Your task to perform on an android device: Do I have any events this weekend? Image 0: 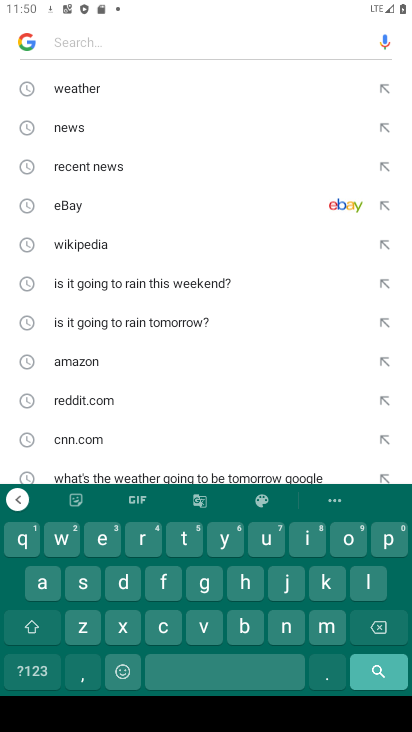
Step 0: press home button
Your task to perform on an android device: Do I have any events this weekend? Image 1: 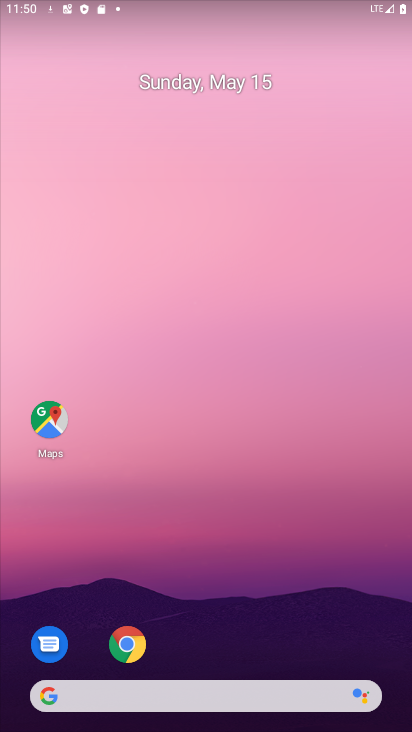
Step 1: drag from (216, 715) to (331, 358)
Your task to perform on an android device: Do I have any events this weekend? Image 2: 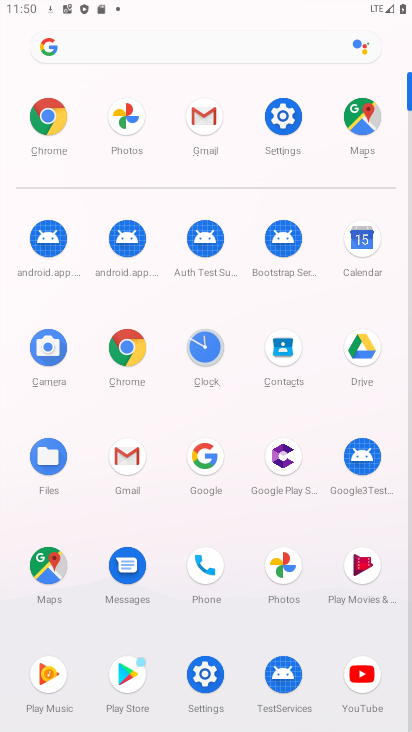
Step 2: click (344, 238)
Your task to perform on an android device: Do I have any events this weekend? Image 3: 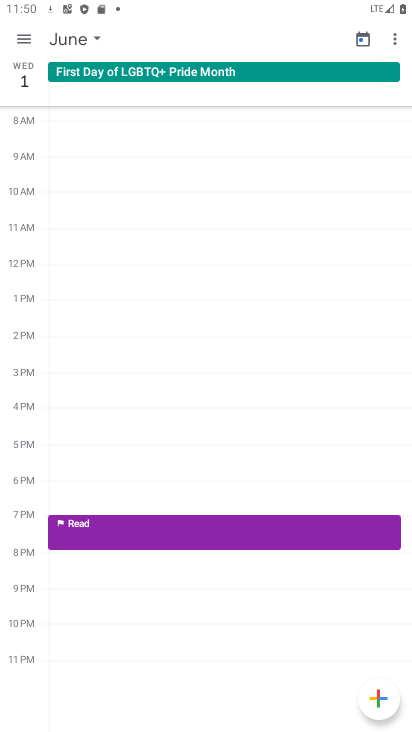
Step 3: click (32, 51)
Your task to perform on an android device: Do I have any events this weekend? Image 4: 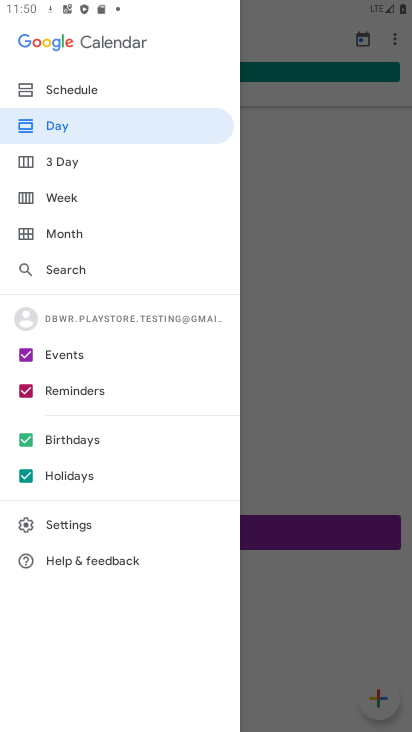
Step 4: click (83, 246)
Your task to perform on an android device: Do I have any events this weekend? Image 5: 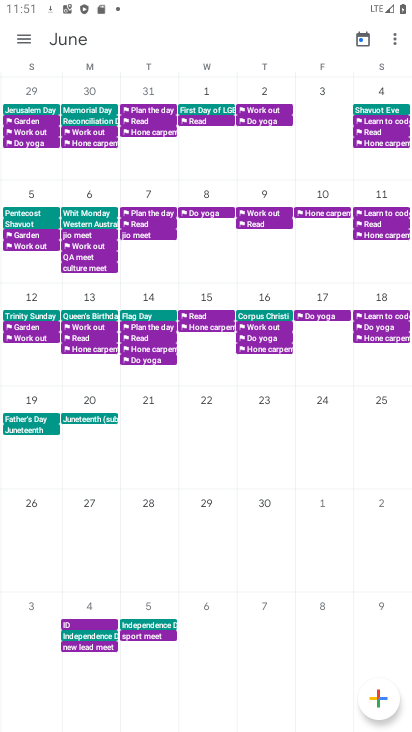
Step 5: drag from (31, 390) to (410, 229)
Your task to perform on an android device: Do I have any events this weekend? Image 6: 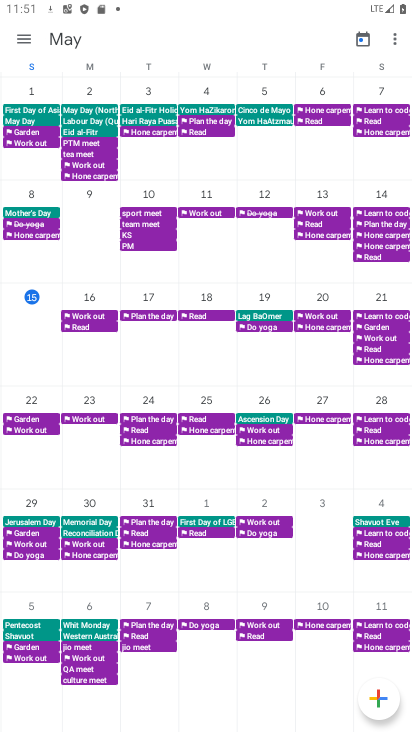
Step 6: click (34, 39)
Your task to perform on an android device: Do I have any events this weekend? Image 7: 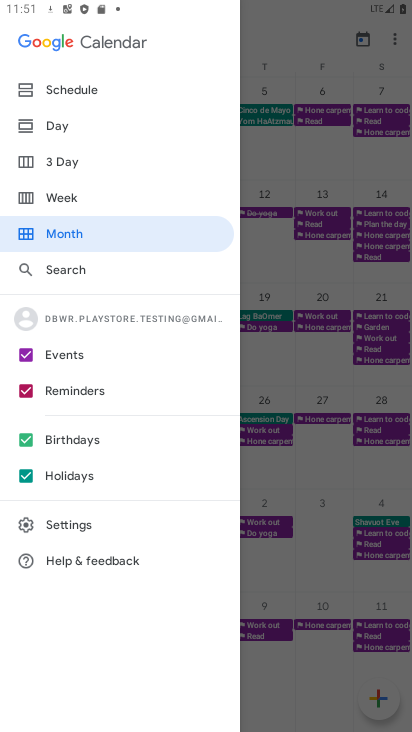
Step 7: click (79, 198)
Your task to perform on an android device: Do I have any events this weekend? Image 8: 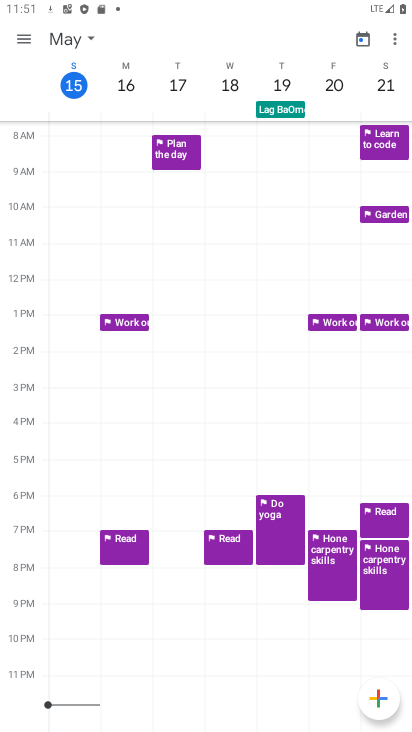
Step 8: task complete